Your task to perform on an android device: Do I have any events this weekend? Image 0: 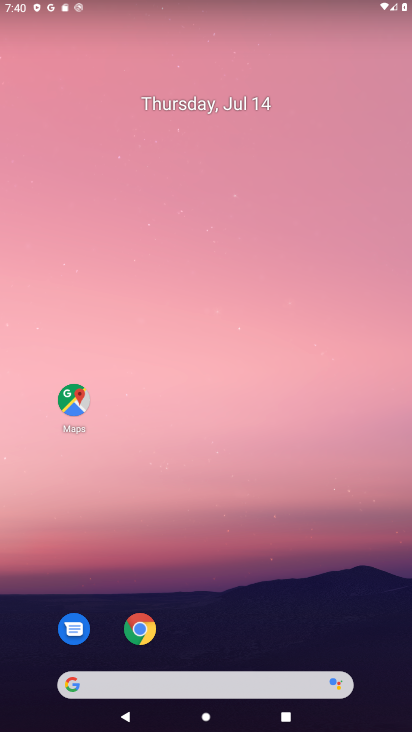
Step 0: drag from (48, 465) to (217, 55)
Your task to perform on an android device: Do I have any events this weekend? Image 1: 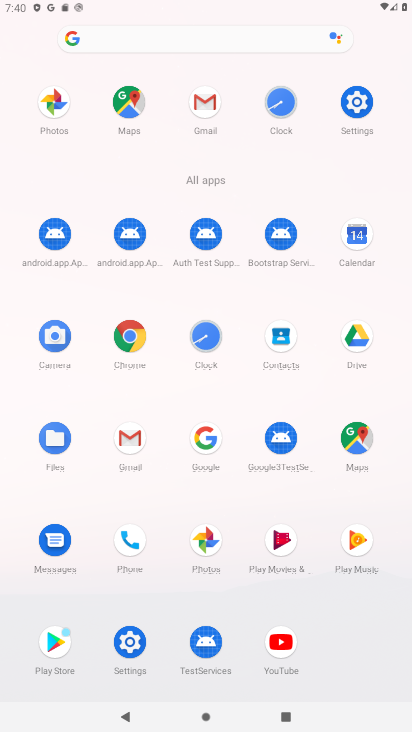
Step 1: click (347, 240)
Your task to perform on an android device: Do I have any events this weekend? Image 2: 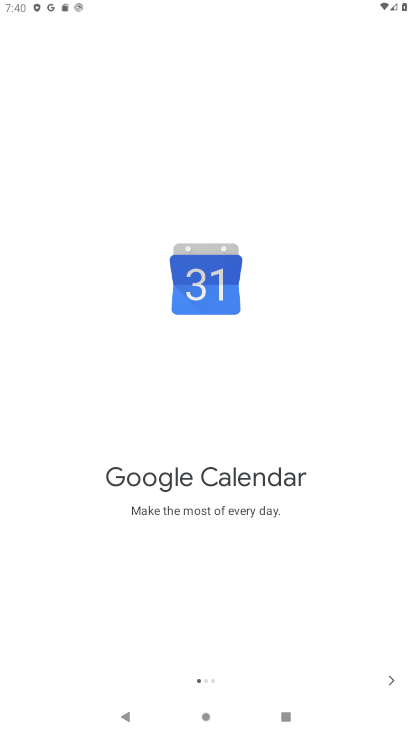
Step 2: click (391, 680)
Your task to perform on an android device: Do I have any events this weekend? Image 3: 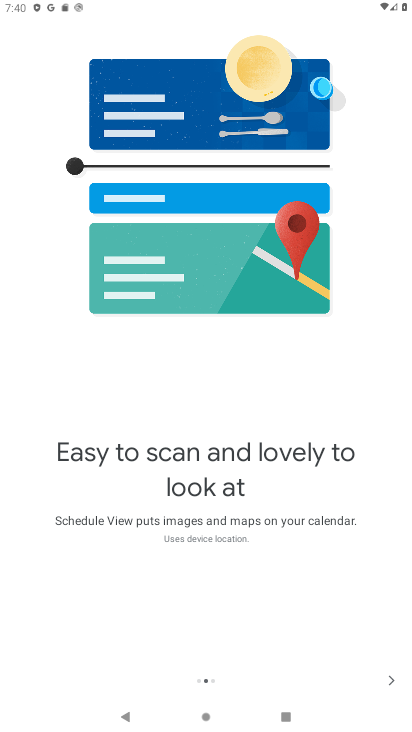
Step 3: click (390, 678)
Your task to perform on an android device: Do I have any events this weekend? Image 4: 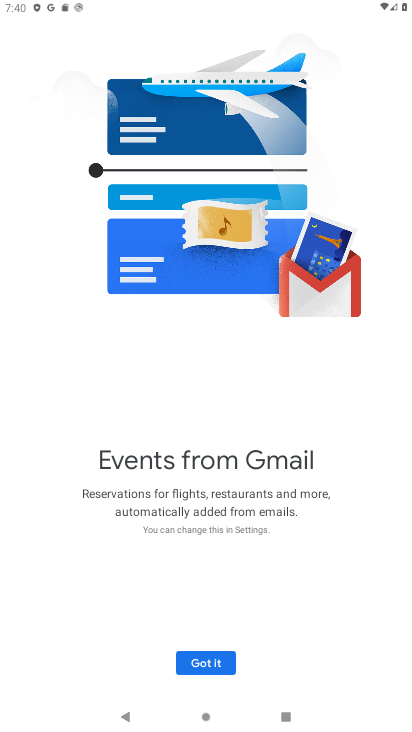
Step 4: click (218, 668)
Your task to perform on an android device: Do I have any events this weekend? Image 5: 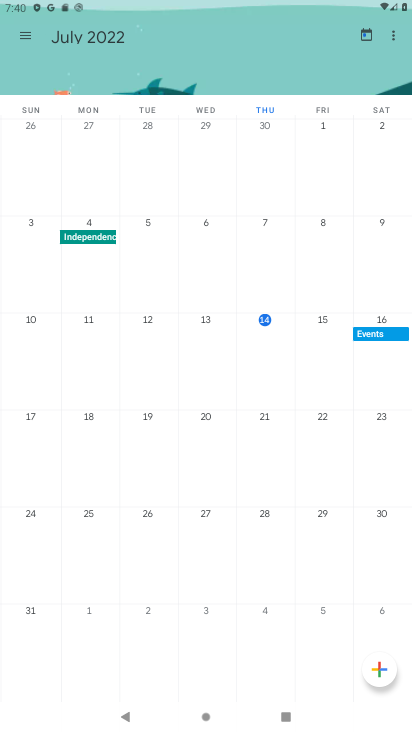
Step 5: task complete